Your task to perform on an android device: delete the emails in spam in the gmail app Image 0: 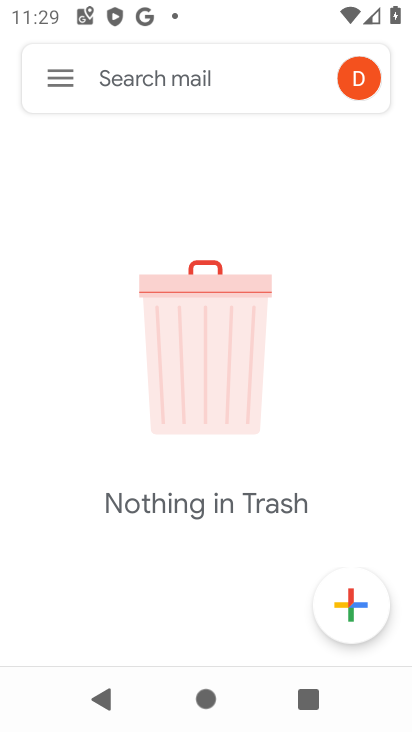
Step 0: press home button
Your task to perform on an android device: delete the emails in spam in the gmail app Image 1: 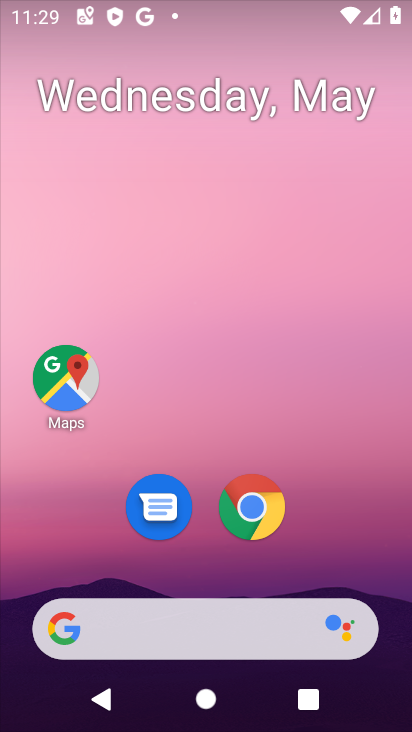
Step 1: drag from (327, 524) to (309, 99)
Your task to perform on an android device: delete the emails in spam in the gmail app Image 2: 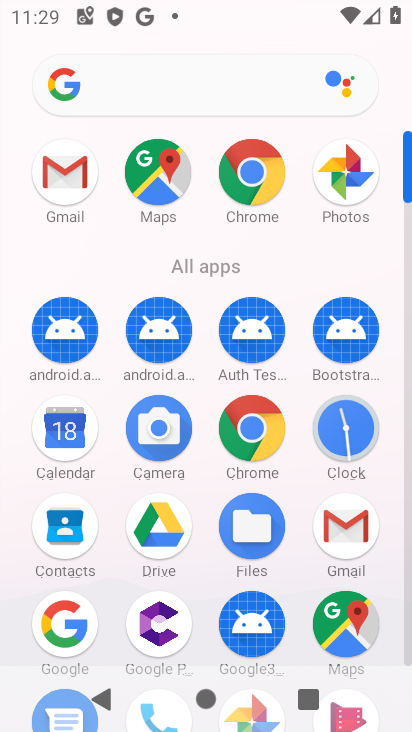
Step 2: click (360, 498)
Your task to perform on an android device: delete the emails in spam in the gmail app Image 3: 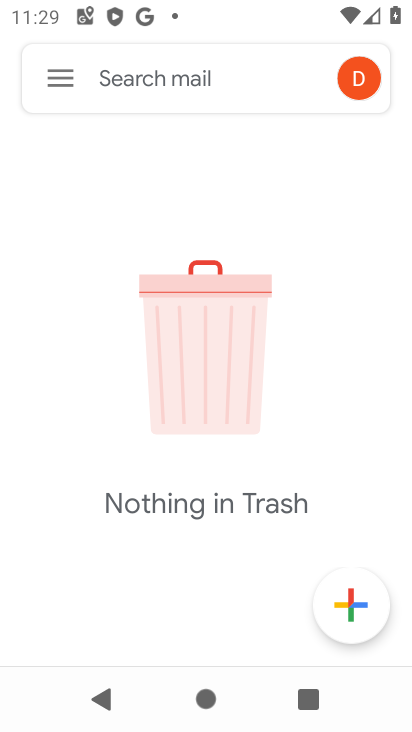
Step 3: click (56, 82)
Your task to perform on an android device: delete the emails in spam in the gmail app Image 4: 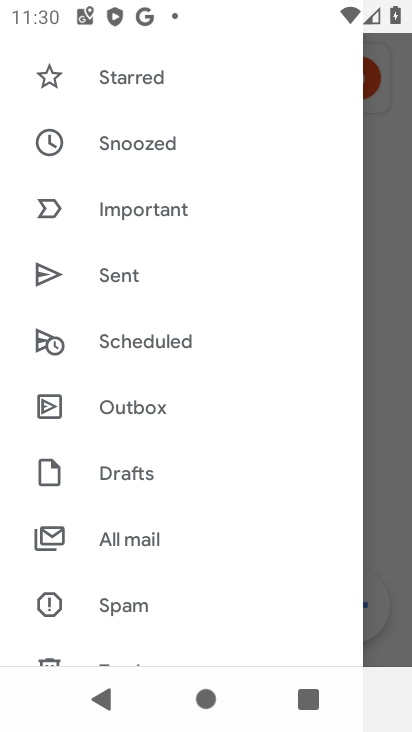
Step 4: task complete